Your task to perform on an android device: toggle translation in the chrome app Image 0: 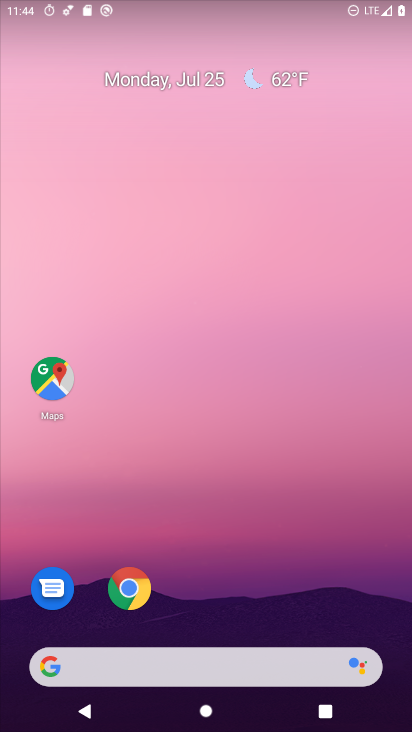
Step 0: click (126, 586)
Your task to perform on an android device: toggle translation in the chrome app Image 1: 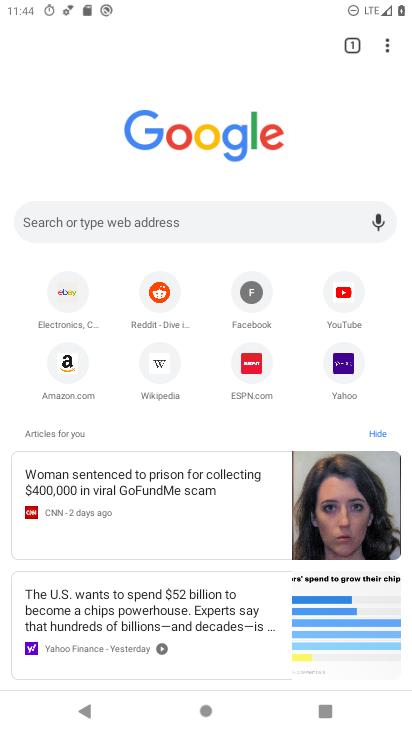
Step 1: click (385, 40)
Your task to perform on an android device: toggle translation in the chrome app Image 2: 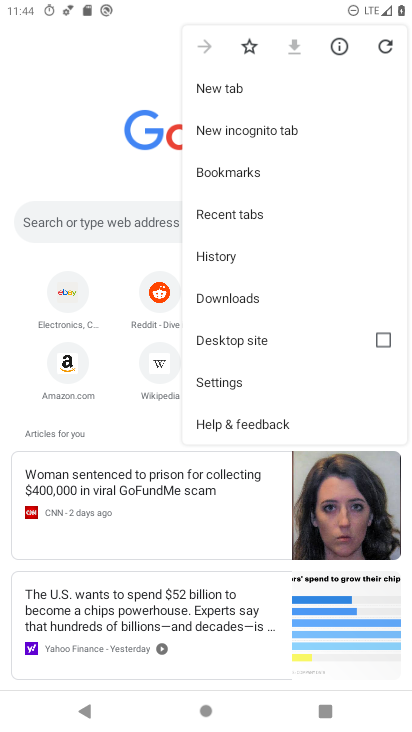
Step 2: click (241, 379)
Your task to perform on an android device: toggle translation in the chrome app Image 3: 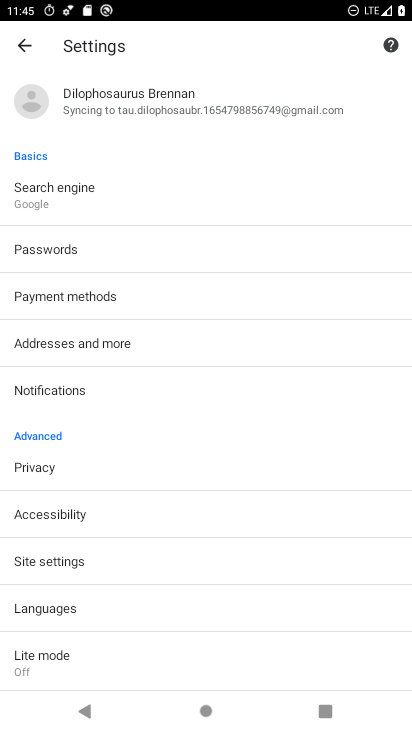
Step 3: click (78, 559)
Your task to perform on an android device: toggle translation in the chrome app Image 4: 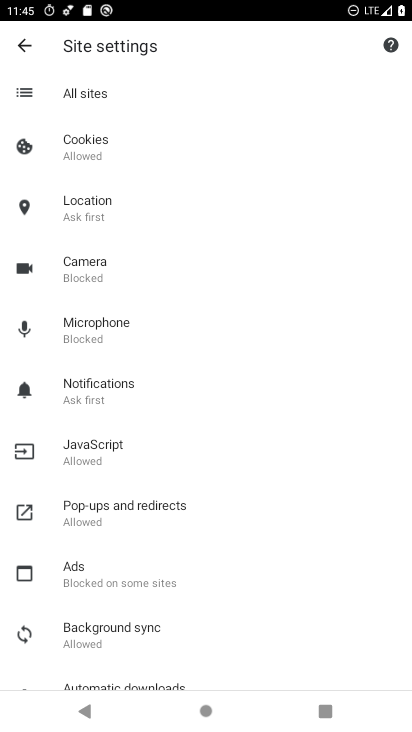
Step 4: press back button
Your task to perform on an android device: toggle translation in the chrome app Image 5: 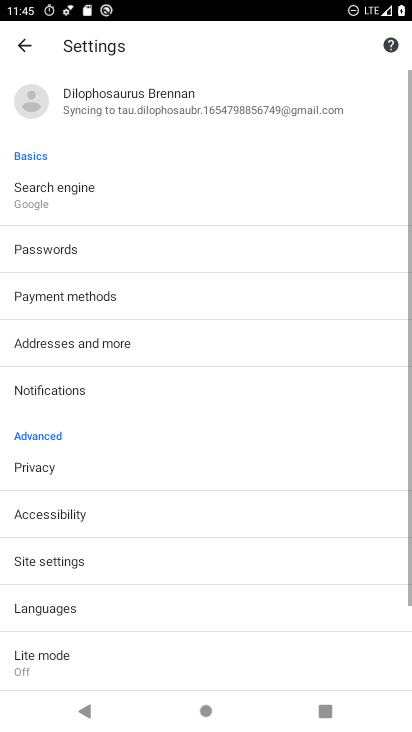
Step 5: click (90, 604)
Your task to perform on an android device: toggle translation in the chrome app Image 6: 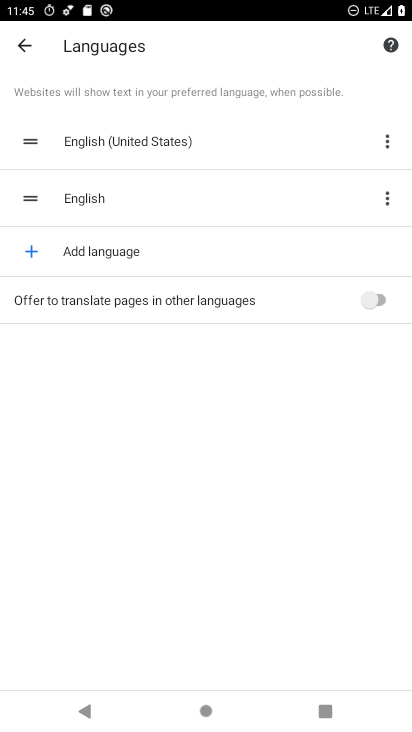
Step 6: click (368, 300)
Your task to perform on an android device: toggle translation in the chrome app Image 7: 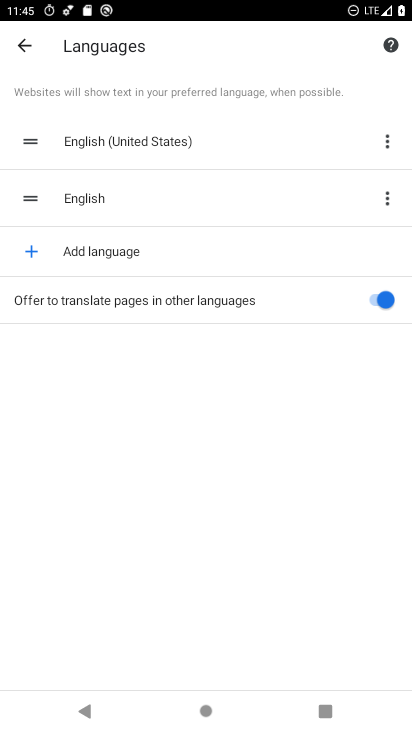
Step 7: task complete